Your task to perform on an android device: open app "Expedia: Hotels, Flights & Car" (install if not already installed), go to login, and select forgot password Image 0: 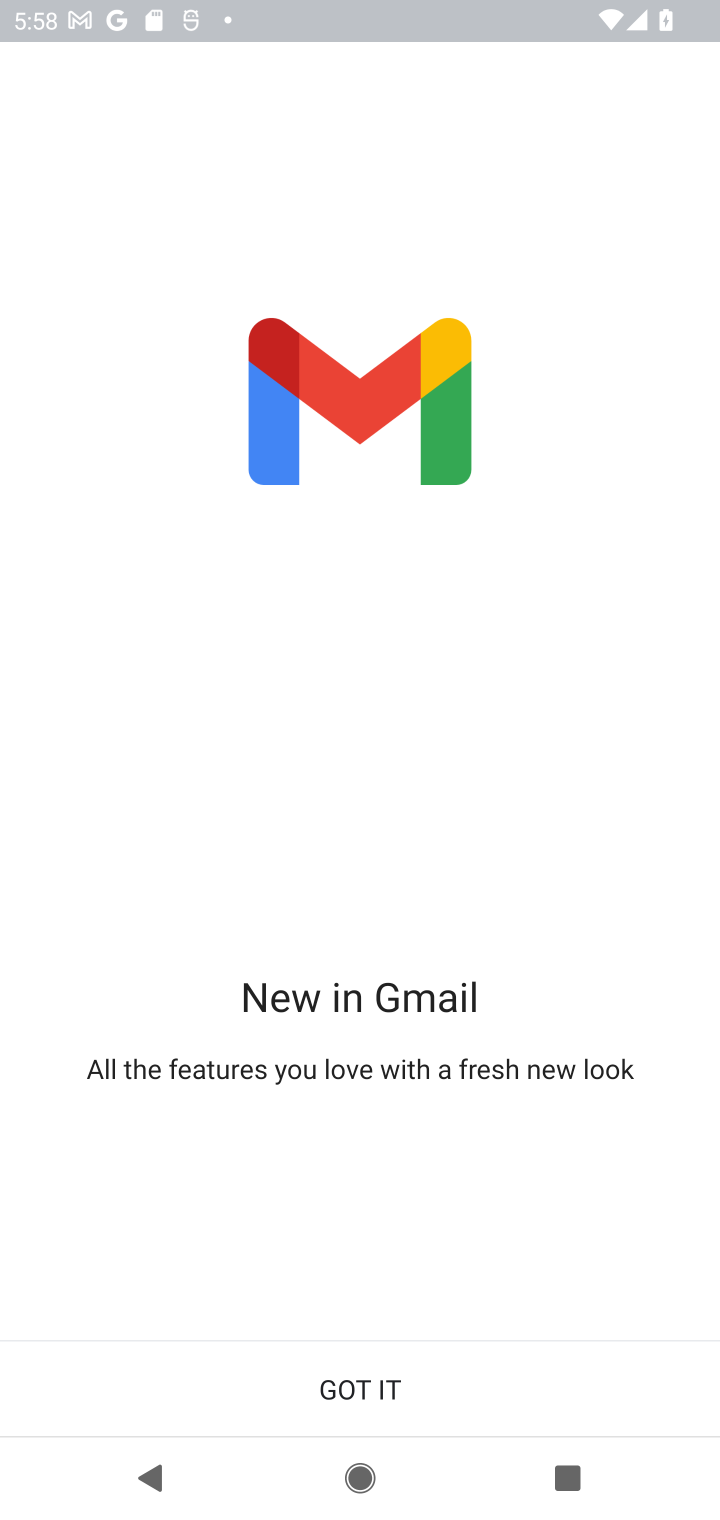
Step 0: press home button
Your task to perform on an android device: open app "Expedia: Hotels, Flights & Car" (install if not already installed), go to login, and select forgot password Image 1: 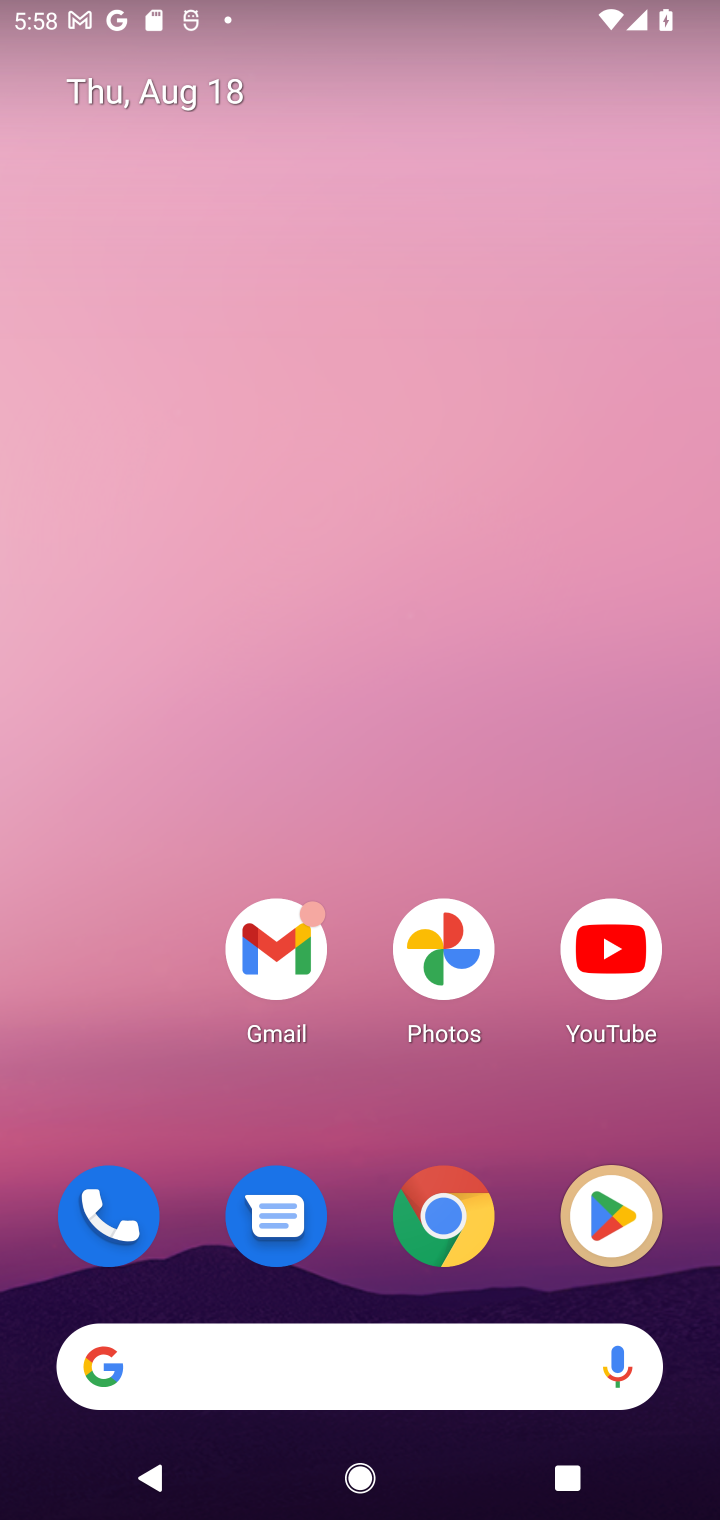
Step 1: click (606, 1214)
Your task to perform on an android device: open app "Expedia: Hotels, Flights & Car" (install if not already installed), go to login, and select forgot password Image 2: 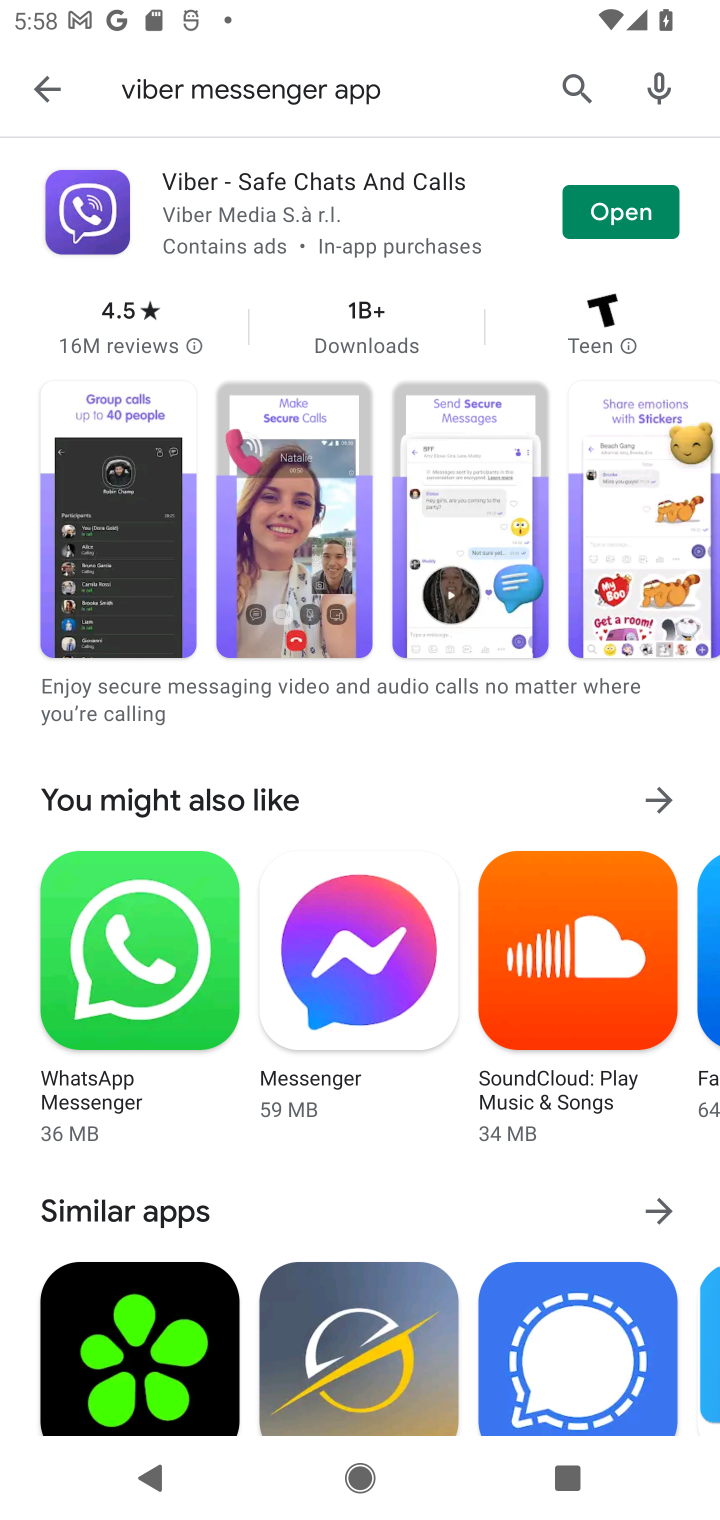
Step 2: click (574, 82)
Your task to perform on an android device: open app "Expedia: Hotels, Flights & Car" (install if not already installed), go to login, and select forgot password Image 3: 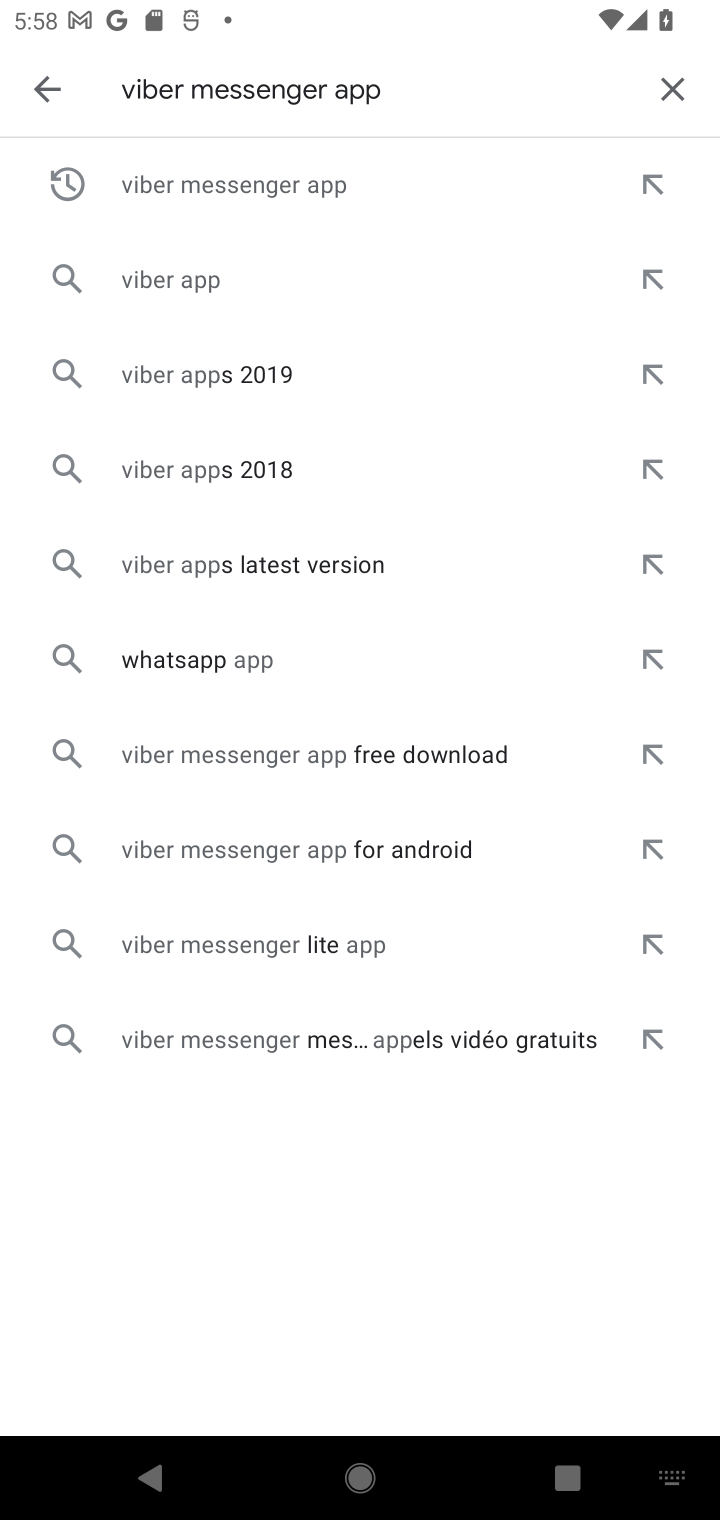
Step 3: click (671, 91)
Your task to perform on an android device: open app "Expedia: Hotels, Flights & Car" (install if not already installed), go to login, and select forgot password Image 4: 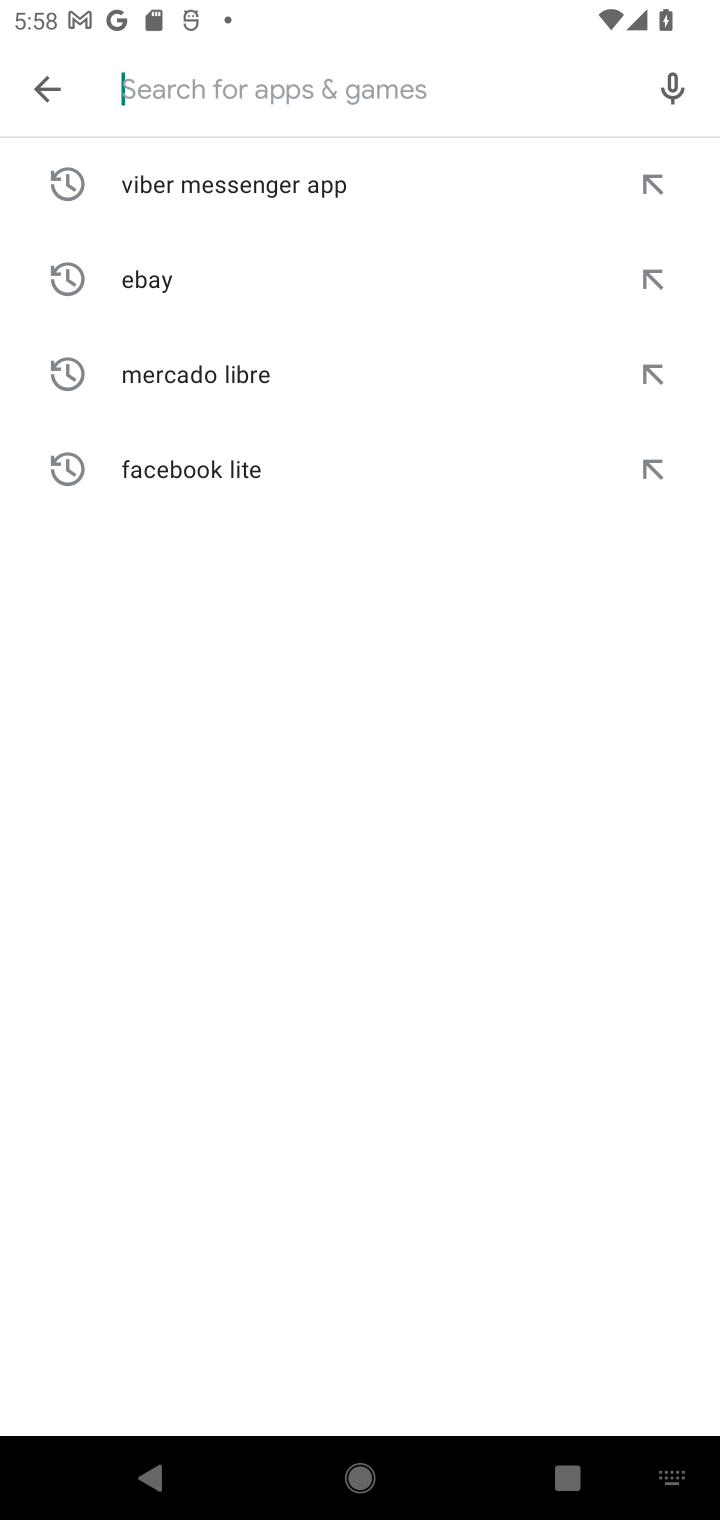
Step 4: type "Expedia: Hotels, Flights & Car"
Your task to perform on an android device: open app "Expedia: Hotels, Flights & Car" (install if not already installed), go to login, and select forgot password Image 5: 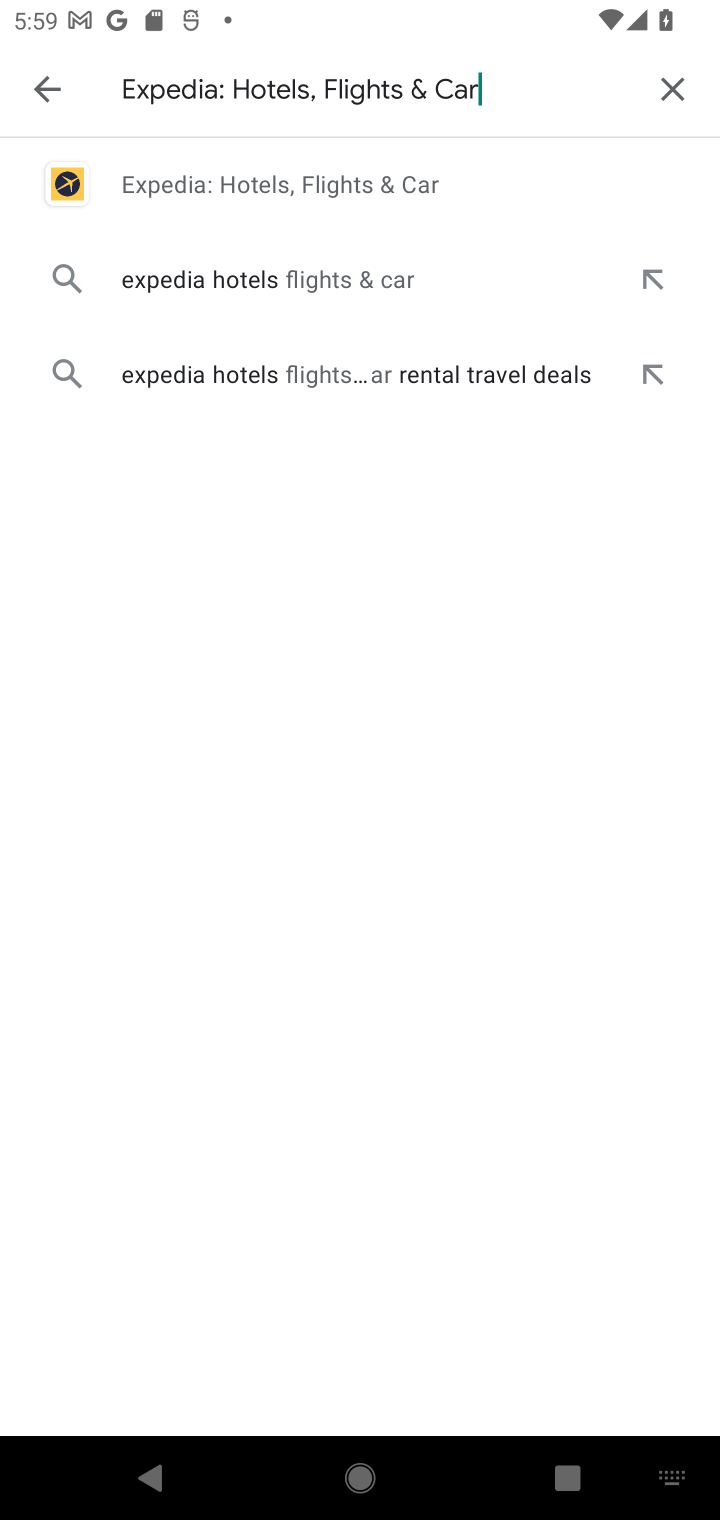
Step 5: click (255, 181)
Your task to perform on an android device: open app "Expedia: Hotels, Flights & Car" (install if not already installed), go to login, and select forgot password Image 6: 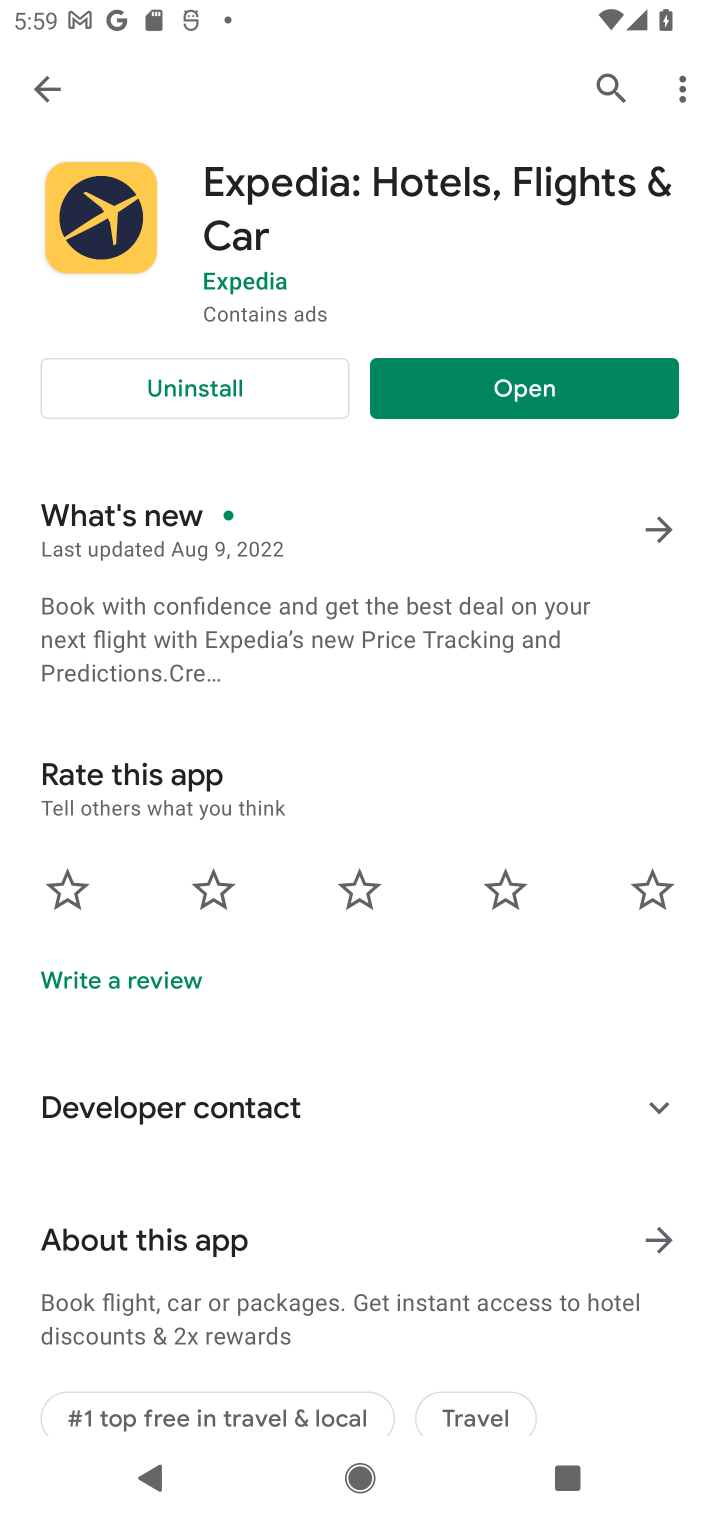
Step 6: click (522, 408)
Your task to perform on an android device: open app "Expedia: Hotels, Flights & Car" (install if not already installed), go to login, and select forgot password Image 7: 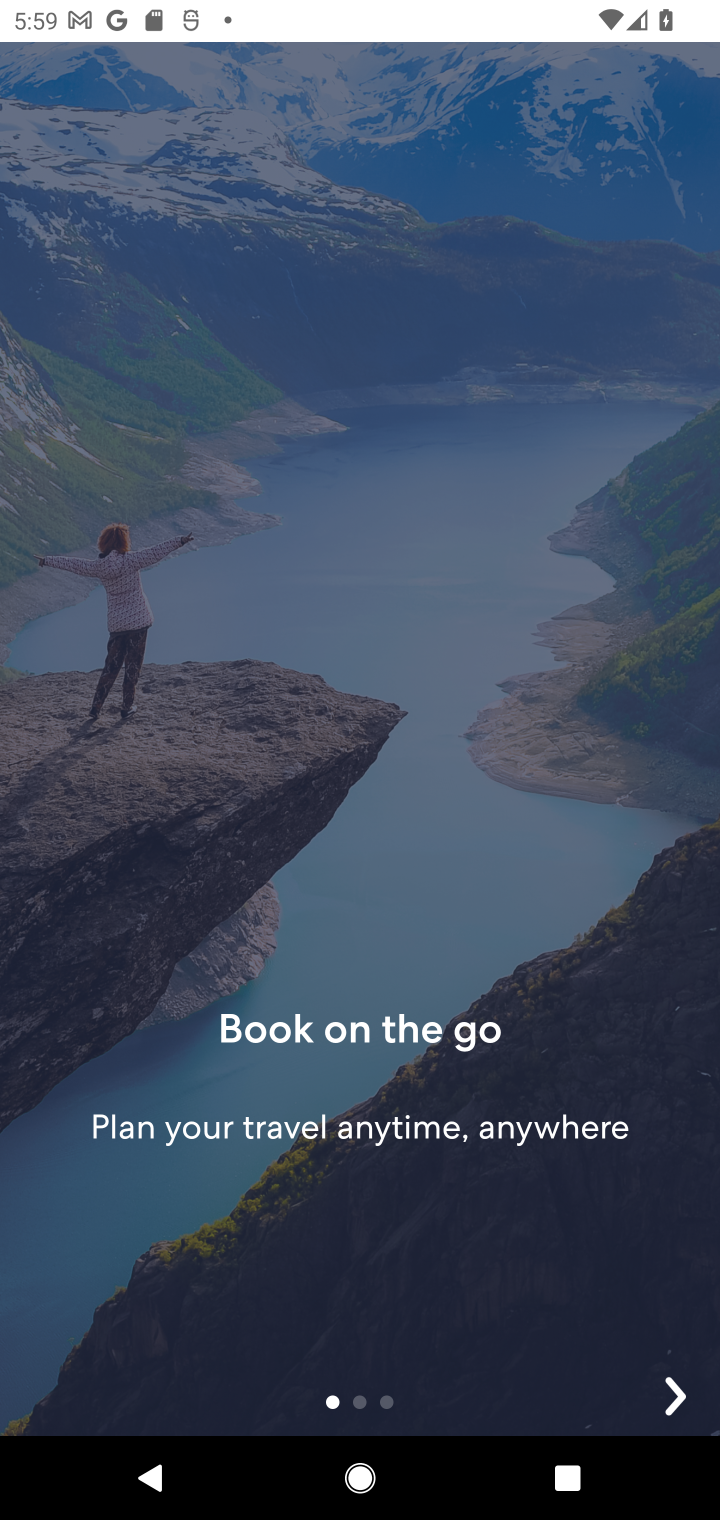
Step 7: click (680, 1398)
Your task to perform on an android device: open app "Expedia: Hotels, Flights & Car" (install if not already installed), go to login, and select forgot password Image 8: 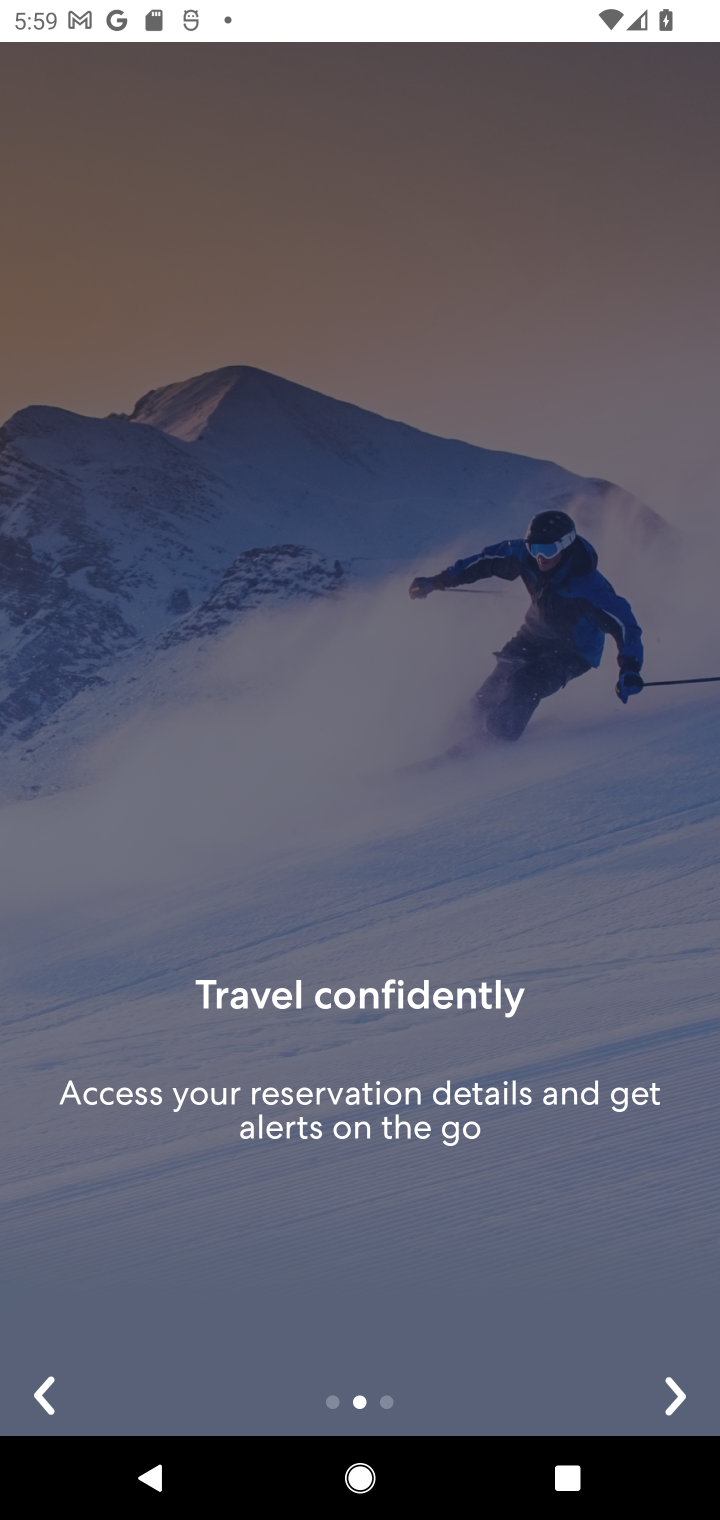
Step 8: click (674, 1397)
Your task to perform on an android device: open app "Expedia: Hotels, Flights & Car" (install if not already installed), go to login, and select forgot password Image 9: 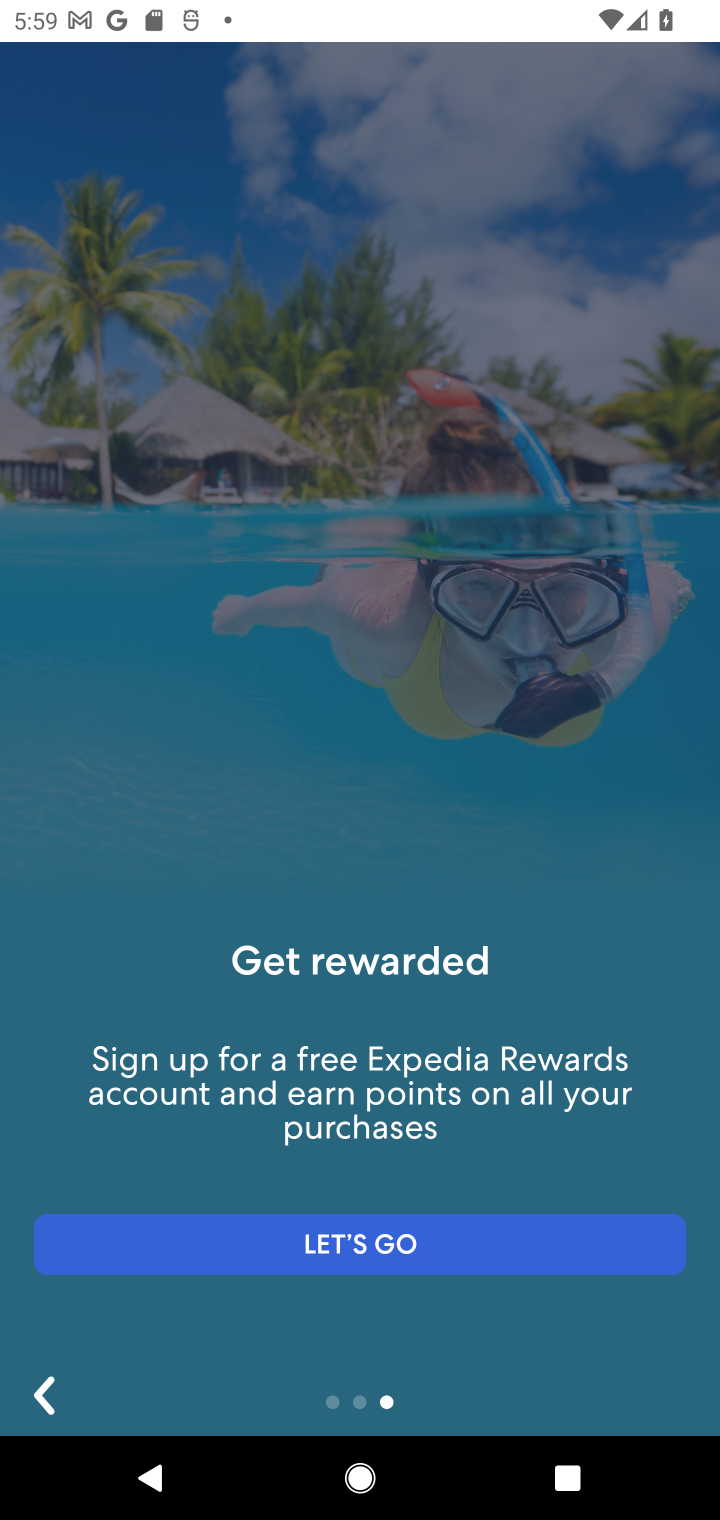
Step 9: click (348, 1249)
Your task to perform on an android device: open app "Expedia: Hotels, Flights & Car" (install if not already installed), go to login, and select forgot password Image 10: 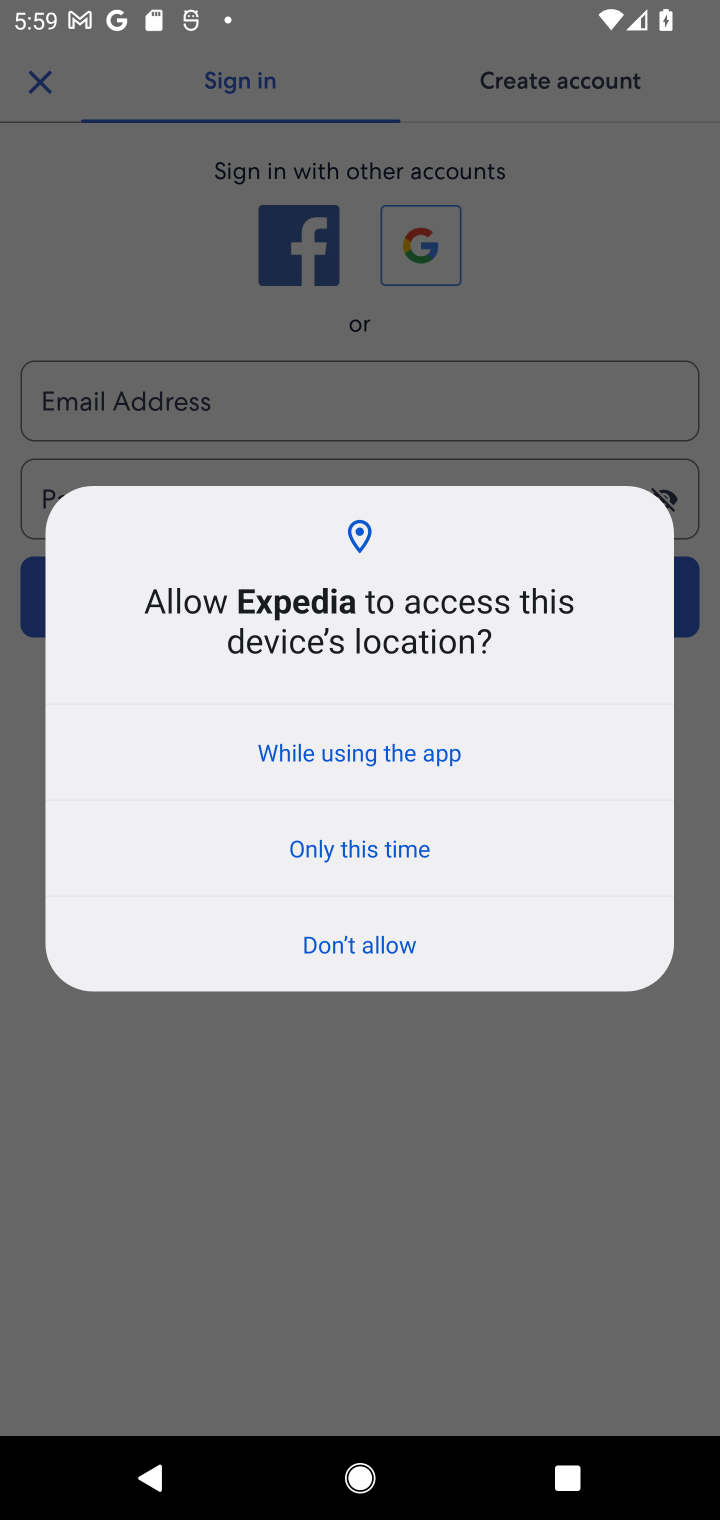
Step 10: click (337, 743)
Your task to perform on an android device: open app "Expedia: Hotels, Flights & Car" (install if not already installed), go to login, and select forgot password Image 11: 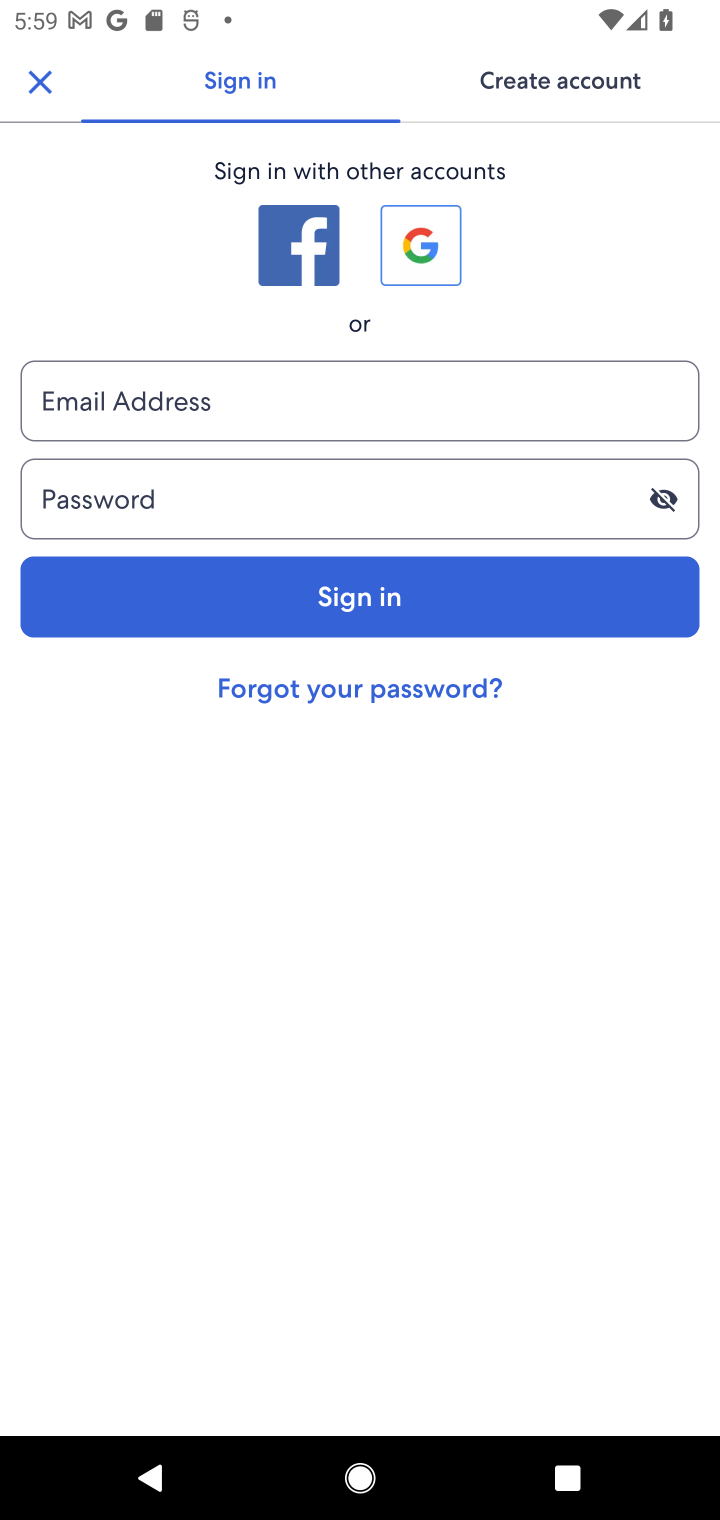
Step 11: click (360, 686)
Your task to perform on an android device: open app "Expedia: Hotels, Flights & Car" (install if not already installed), go to login, and select forgot password Image 12: 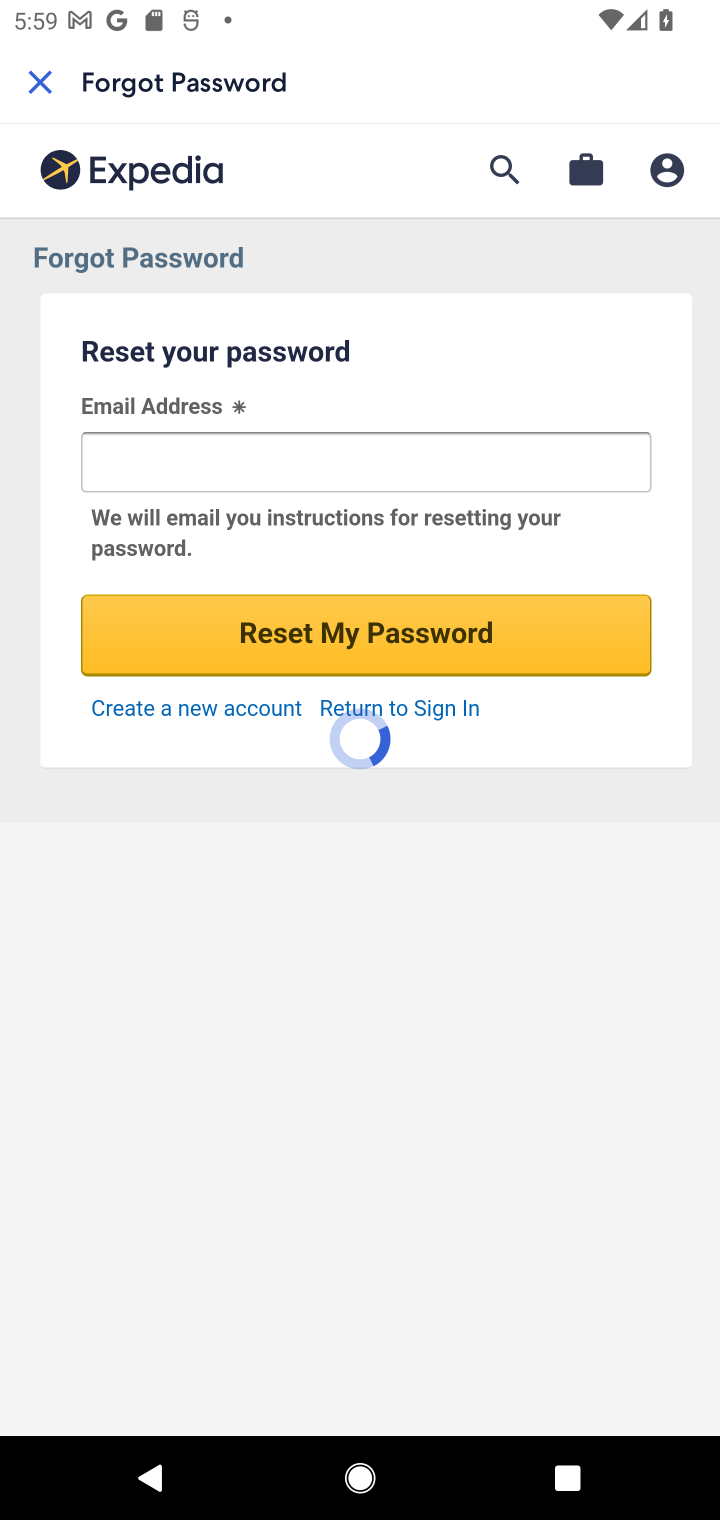
Step 12: task complete